Your task to perform on an android device: stop showing notifications on the lock screen Image 0: 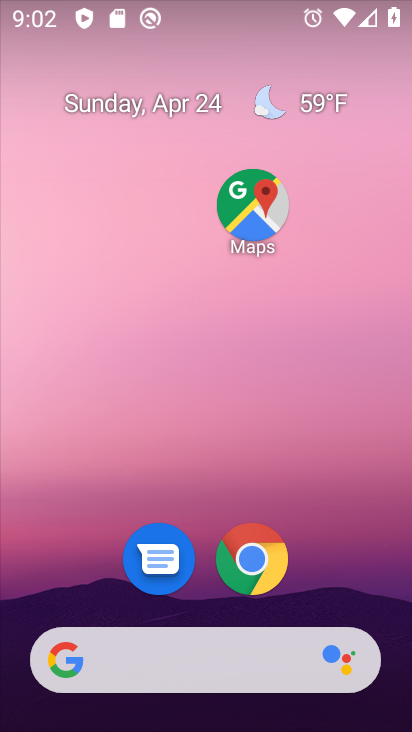
Step 0: drag from (72, 428) to (132, 270)
Your task to perform on an android device: stop showing notifications on the lock screen Image 1: 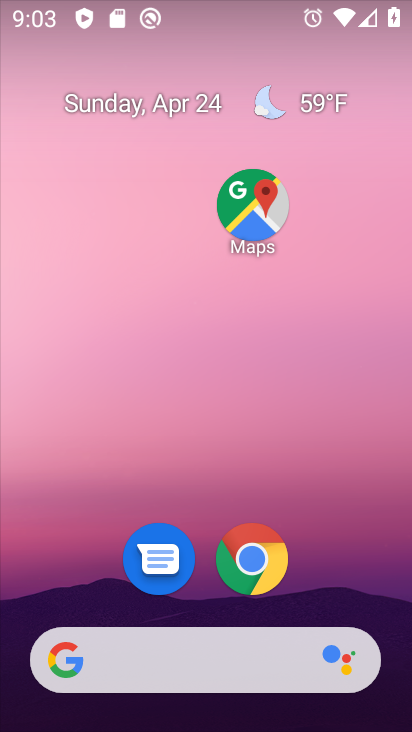
Step 1: drag from (38, 513) to (211, 269)
Your task to perform on an android device: stop showing notifications on the lock screen Image 2: 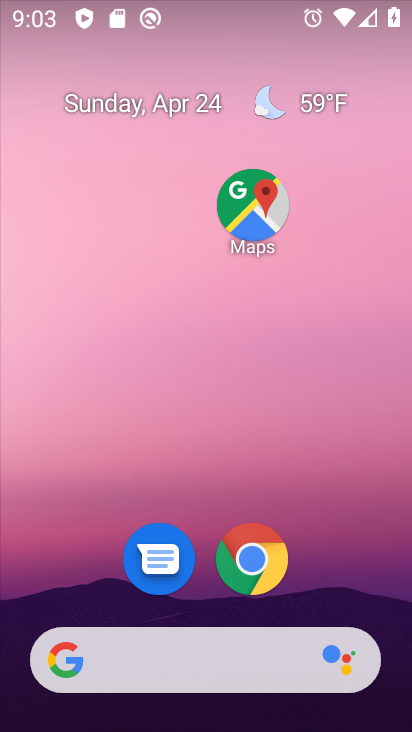
Step 2: drag from (10, 730) to (228, 322)
Your task to perform on an android device: stop showing notifications on the lock screen Image 3: 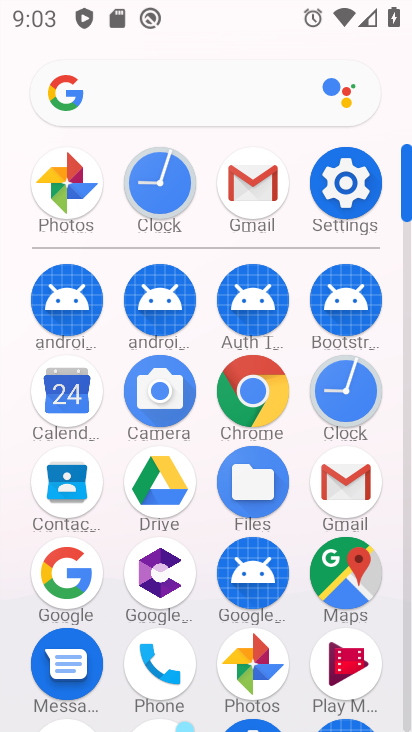
Step 3: click (349, 183)
Your task to perform on an android device: stop showing notifications on the lock screen Image 4: 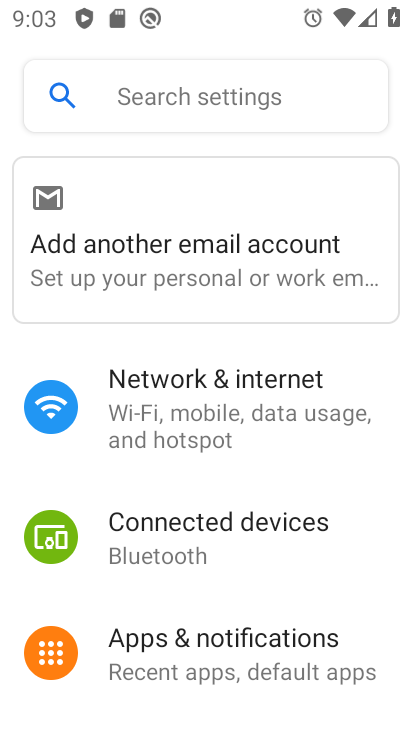
Step 4: click (167, 653)
Your task to perform on an android device: stop showing notifications on the lock screen Image 5: 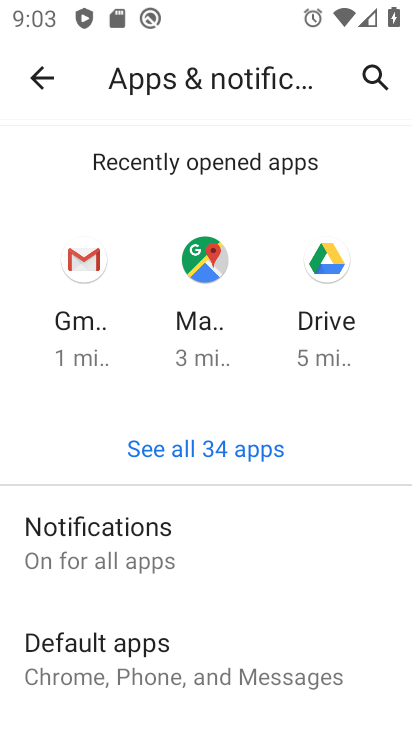
Step 5: drag from (74, 469) to (175, 309)
Your task to perform on an android device: stop showing notifications on the lock screen Image 6: 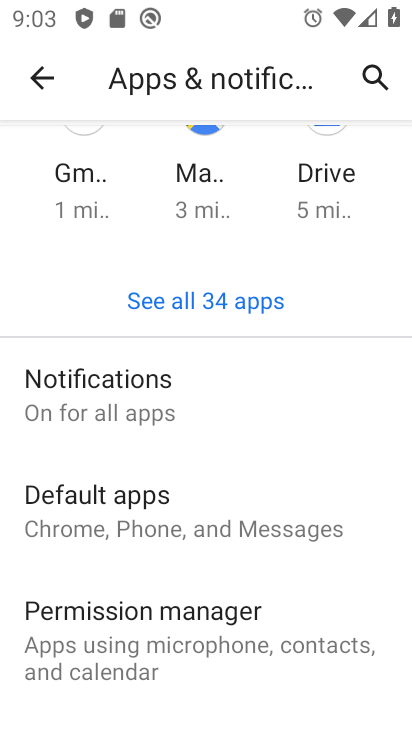
Step 6: drag from (138, 667) to (271, 401)
Your task to perform on an android device: stop showing notifications on the lock screen Image 7: 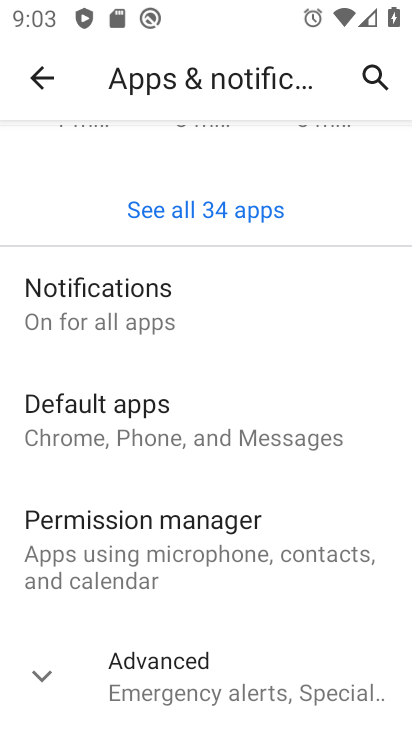
Step 7: click (187, 659)
Your task to perform on an android device: stop showing notifications on the lock screen Image 8: 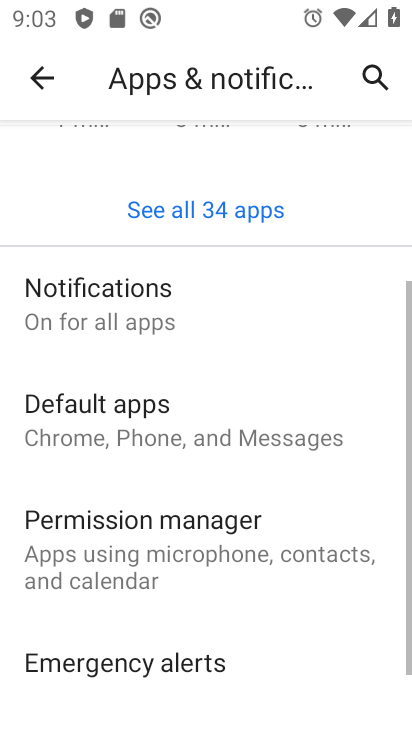
Step 8: drag from (133, 705) to (281, 320)
Your task to perform on an android device: stop showing notifications on the lock screen Image 9: 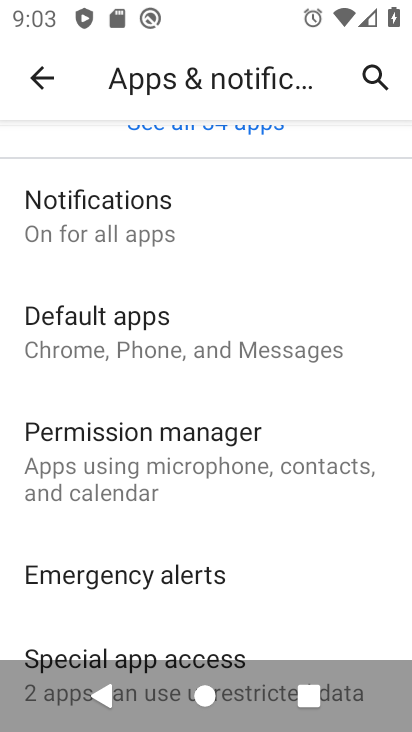
Step 9: drag from (170, 508) to (270, 270)
Your task to perform on an android device: stop showing notifications on the lock screen Image 10: 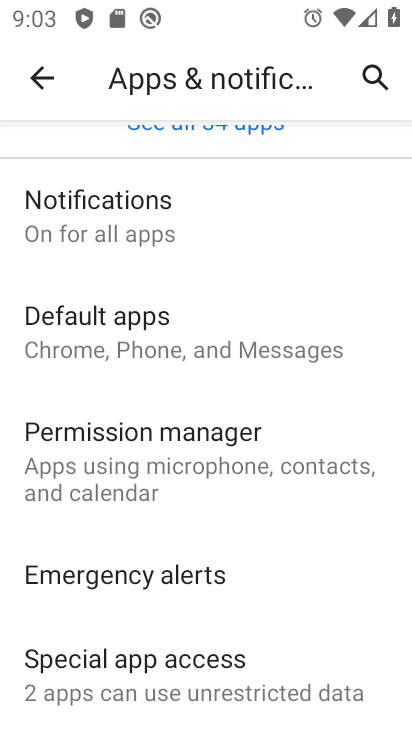
Step 10: click (152, 235)
Your task to perform on an android device: stop showing notifications on the lock screen Image 11: 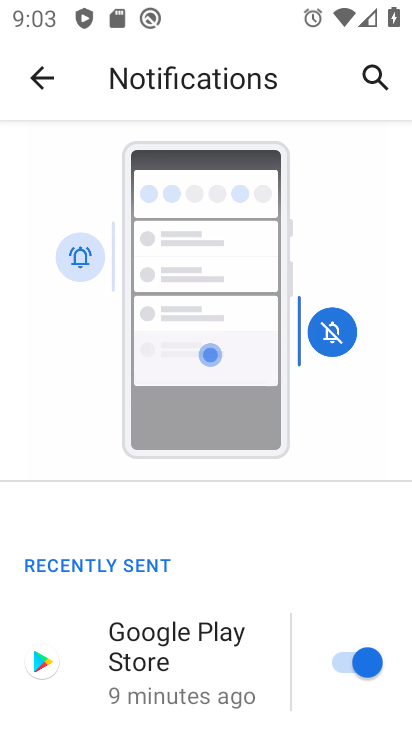
Step 11: drag from (78, 705) to (154, 369)
Your task to perform on an android device: stop showing notifications on the lock screen Image 12: 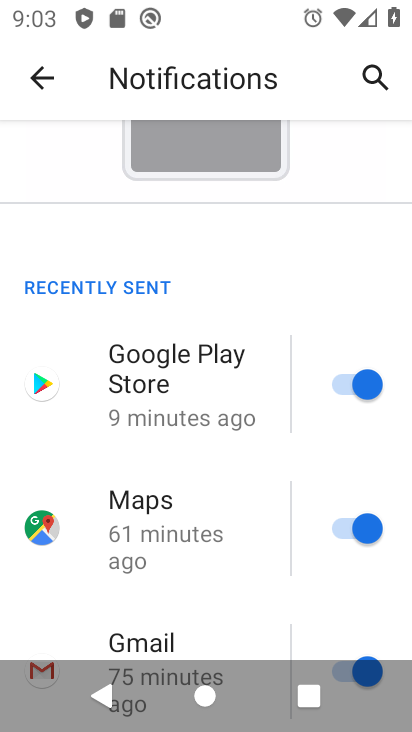
Step 12: drag from (131, 574) to (248, 251)
Your task to perform on an android device: stop showing notifications on the lock screen Image 13: 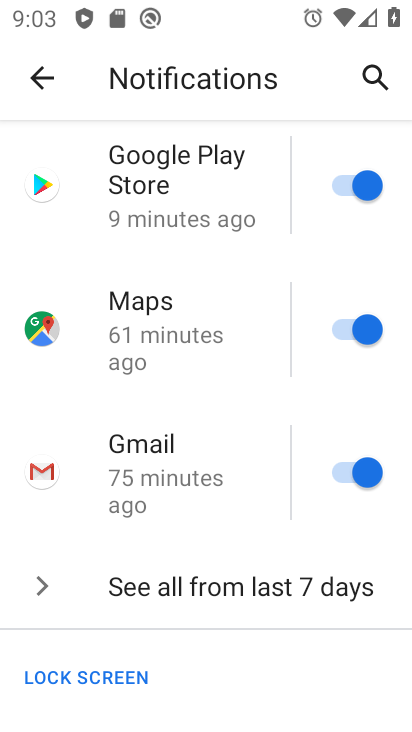
Step 13: drag from (136, 685) to (271, 350)
Your task to perform on an android device: stop showing notifications on the lock screen Image 14: 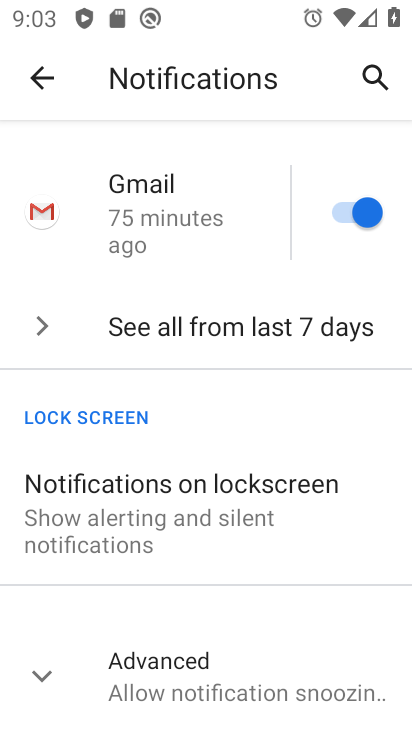
Step 14: click (171, 537)
Your task to perform on an android device: stop showing notifications on the lock screen Image 15: 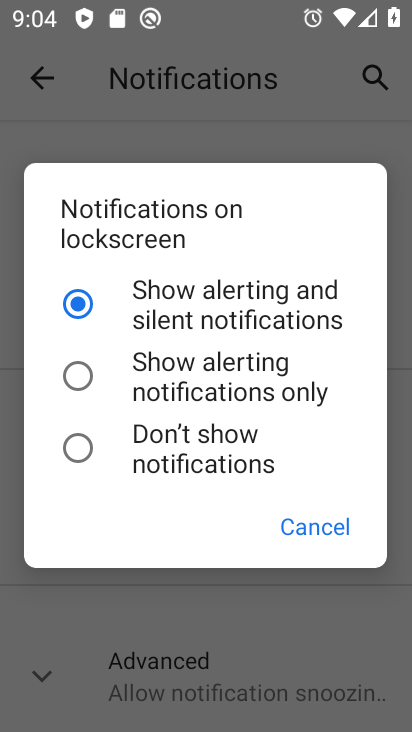
Step 15: click (85, 443)
Your task to perform on an android device: stop showing notifications on the lock screen Image 16: 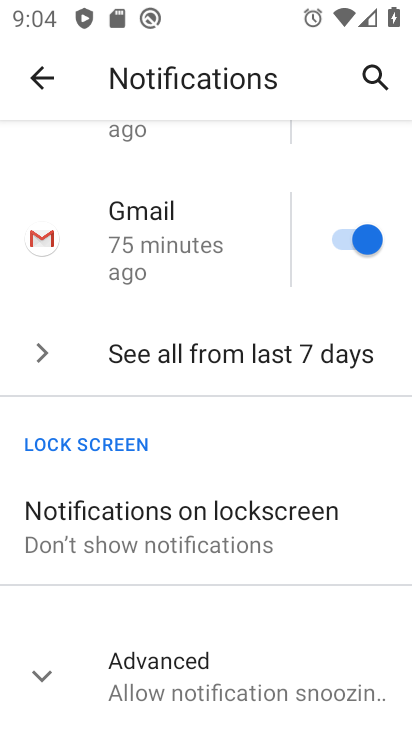
Step 16: task complete